Your task to perform on an android device: allow cookies in the chrome app Image 0: 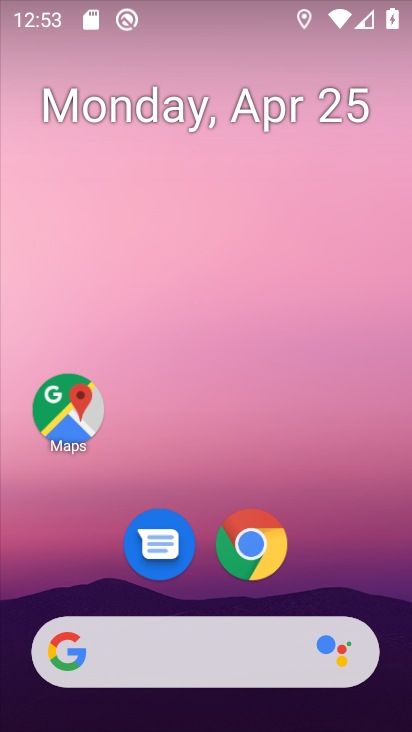
Step 0: click (266, 552)
Your task to perform on an android device: allow cookies in the chrome app Image 1: 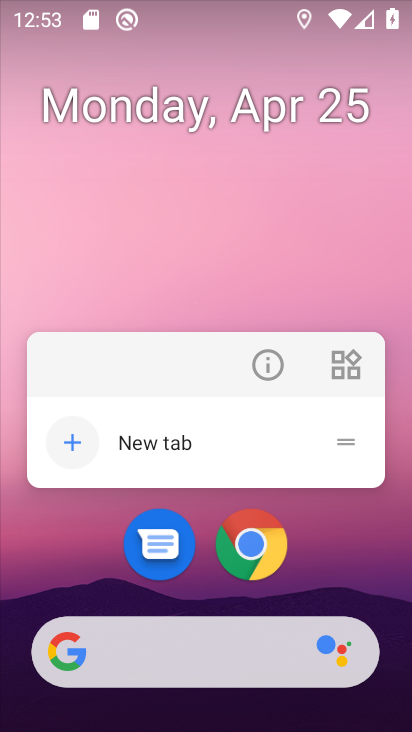
Step 1: click (267, 565)
Your task to perform on an android device: allow cookies in the chrome app Image 2: 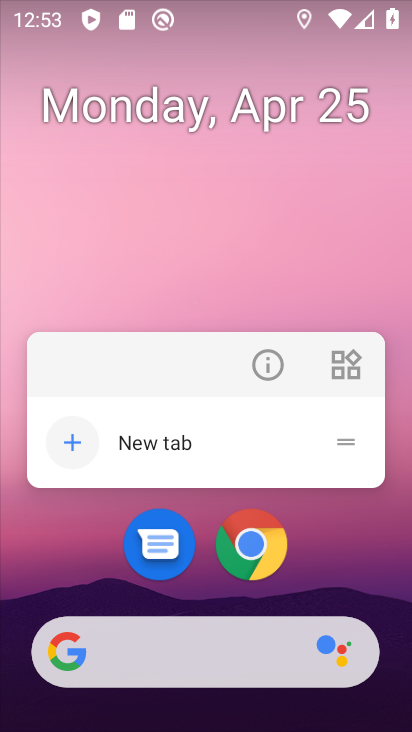
Step 2: click (250, 550)
Your task to perform on an android device: allow cookies in the chrome app Image 3: 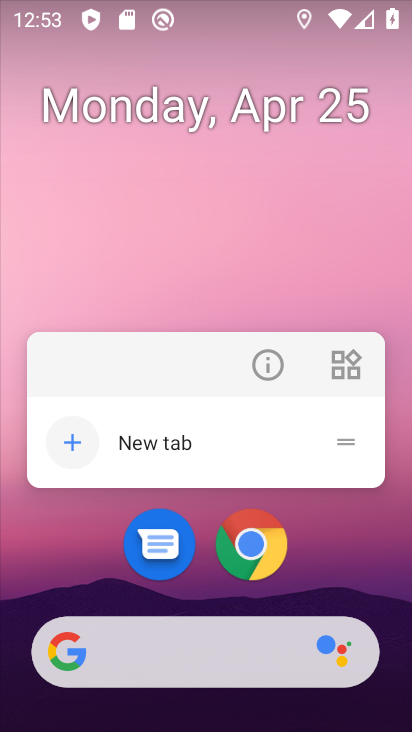
Step 3: click (262, 535)
Your task to perform on an android device: allow cookies in the chrome app Image 4: 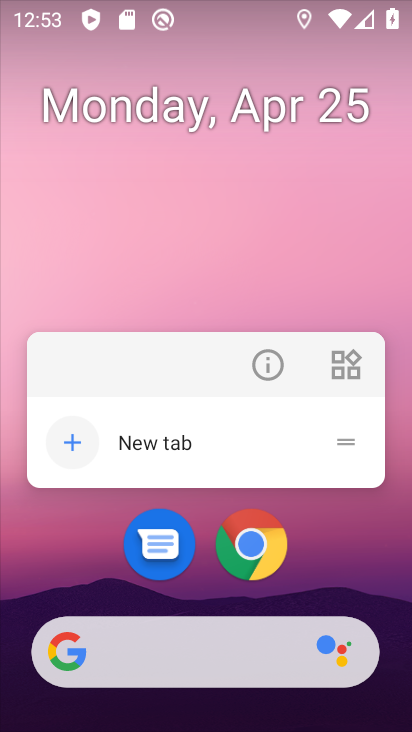
Step 4: click (253, 548)
Your task to perform on an android device: allow cookies in the chrome app Image 5: 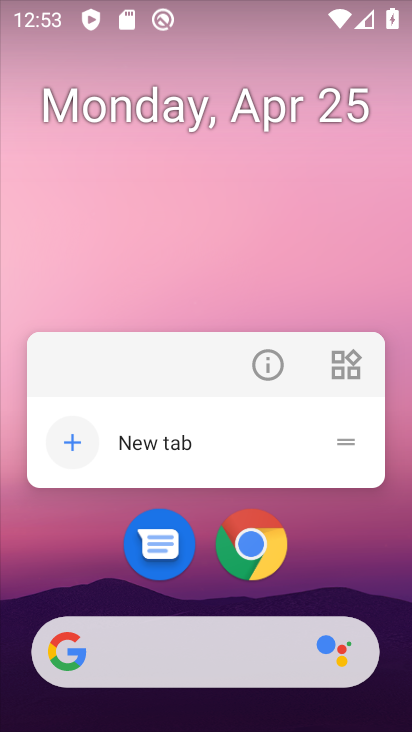
Step 5: click (276, 548)
Your task to perform on an android device: allow cookies in the chrome app Image 6: 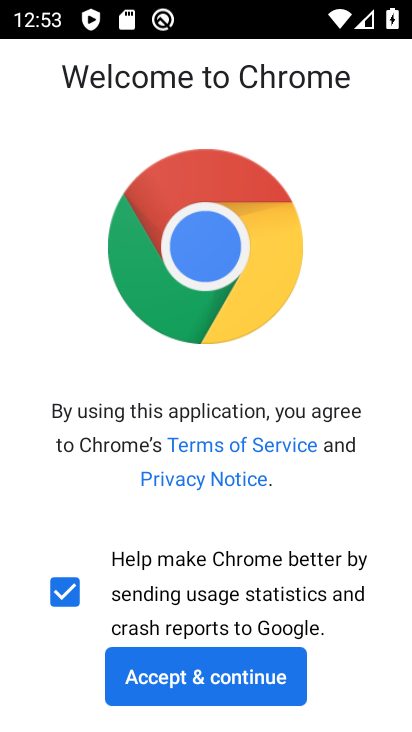
Step 6: click (223, 668)
Your task to perform on an android device: allow cookies in the chrome app Image 7: 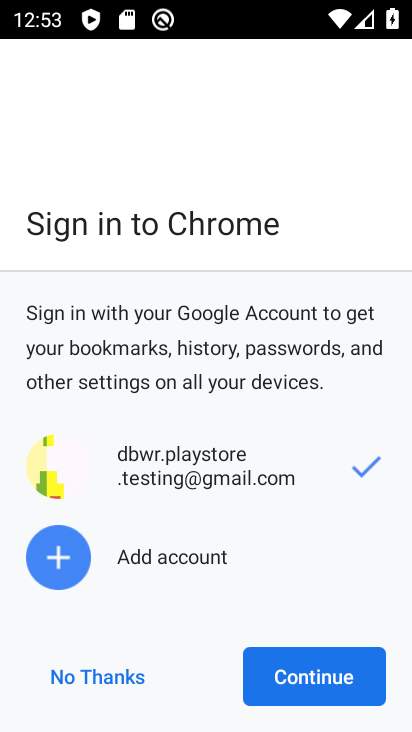
Step 7: click (313, 677)
Your task to perform on an android device: allow cookies in the chrome app Image 8: 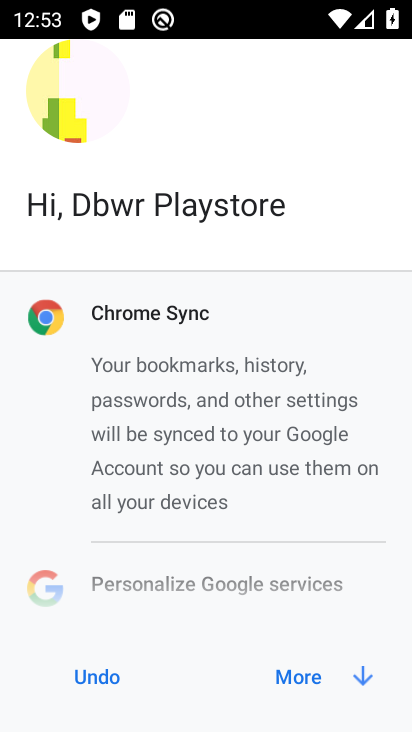
Step 8: click (321, 680)
Your task to perform on an android device: allow cookies in the chrome app Image 9: 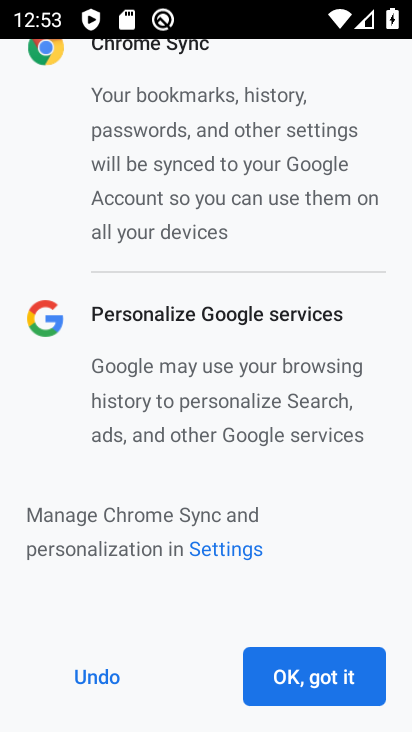
Step 9: click (319, 680)
Your task to perform on an android device: allow cookies in the chrome app Image 10: 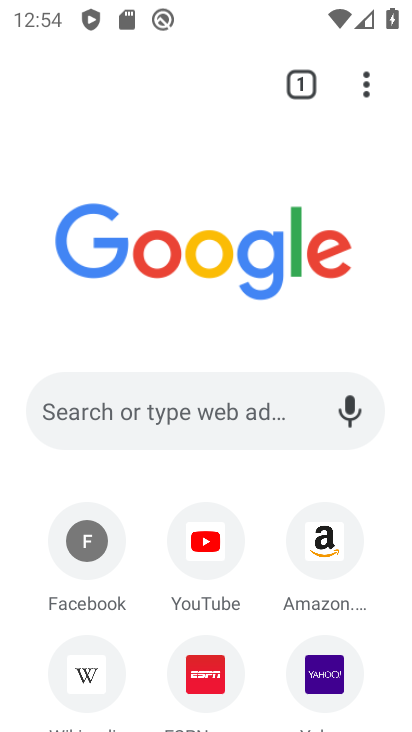
Step 10: click (371, 86)
Your task to perform on an android device: allow cookies in the chrome app Image 11: 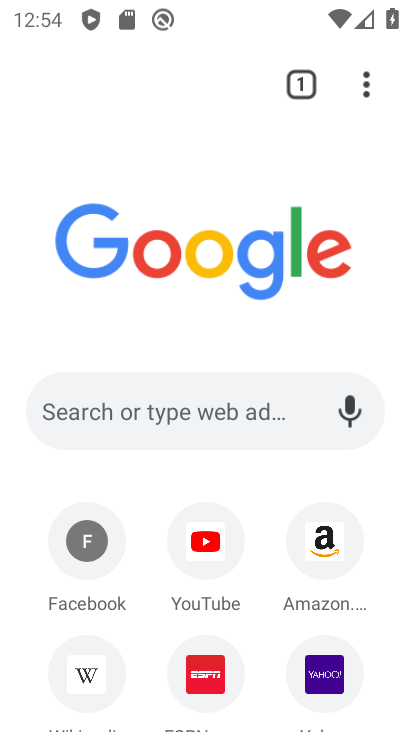
Step 11: drag from (371, 87) to (218, 593)
Your task to perform on an android device: allow cookies in the chrome app Image 12: 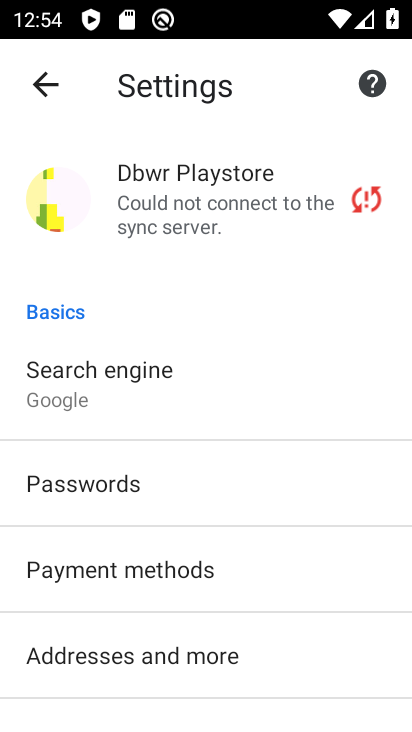
Step 12: drag from (173, 635) to (265, 289)
Your task to perform on an android device: allow cookies in the chrome app Image 13: 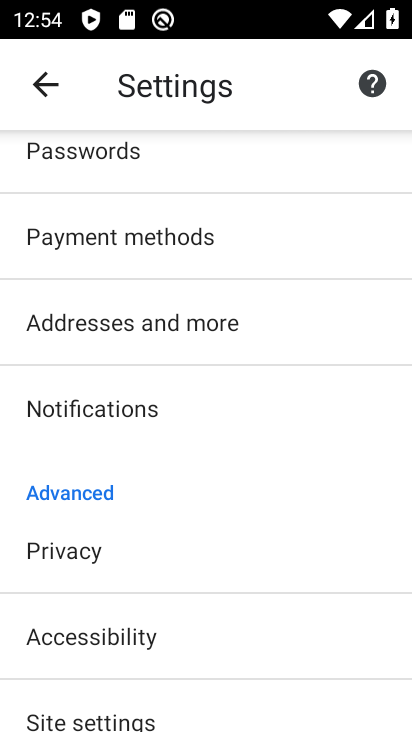
Step 13: drag from (180, 675) to (256, 409)
Your task to perform on an android device: allow cookies in the chrome app Image 14: 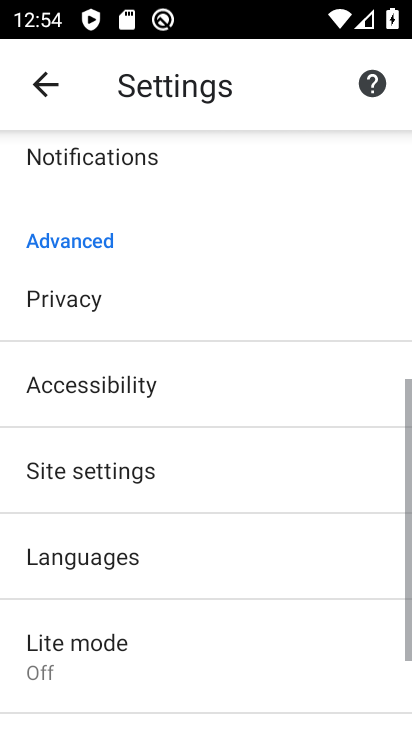
Step 14: click (206, 486)
Your task to perform on an android device: allow cookies in the chrome app Image 15: 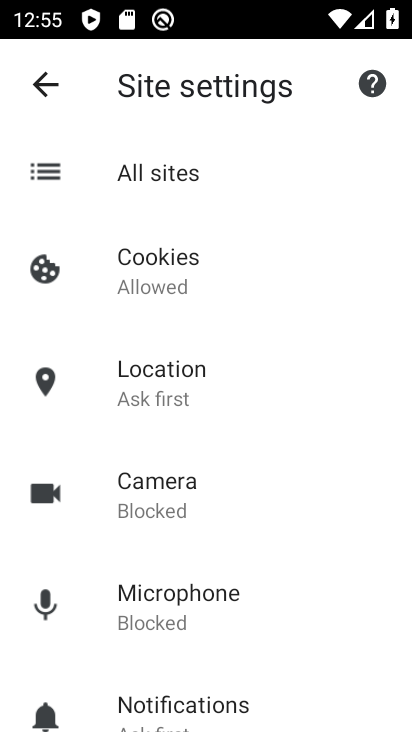
Step 15: drag from (215, 674) to (252, 641)
Your task to perform on an android device: allow cookies in the chrome app Image 16: 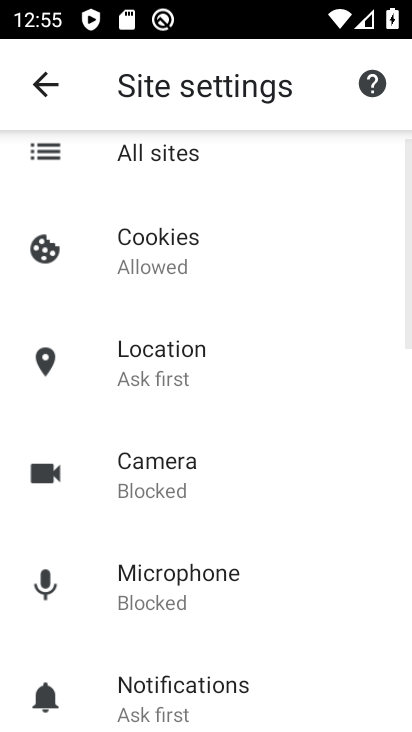
Step 16: click (196, 262)
Your task to perform on an android device: allow cookies in the chrome app Image 17: 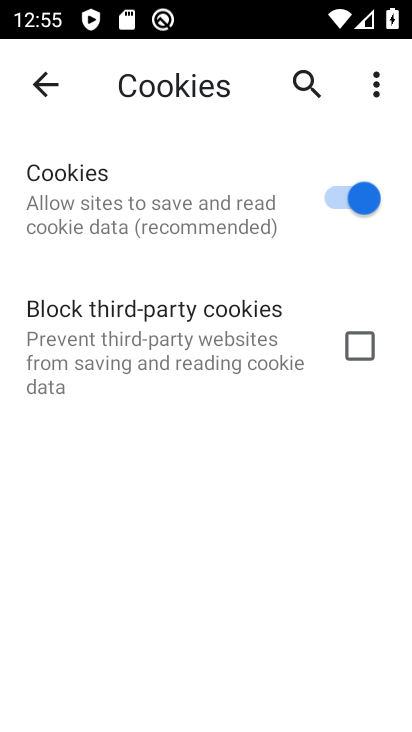
Step 17: task complete